Your task to perform on an android device: toggle translation in the chrome app Image 0: 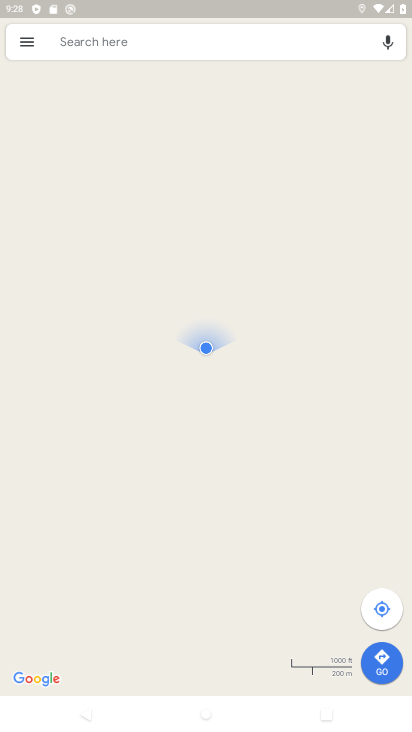
Step 0: press home button
Your task to perform on an android device: toggle translation in the chrome app Image 1: 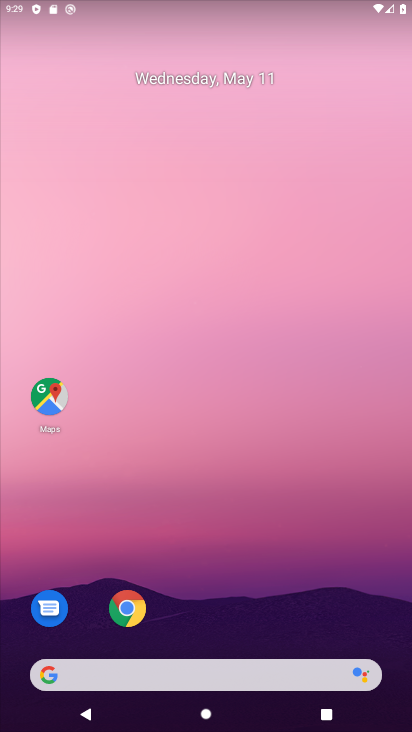
Step 1: click (135, 606)
Your task to perform on an android device: toggle translation in the chrome app Image 2: 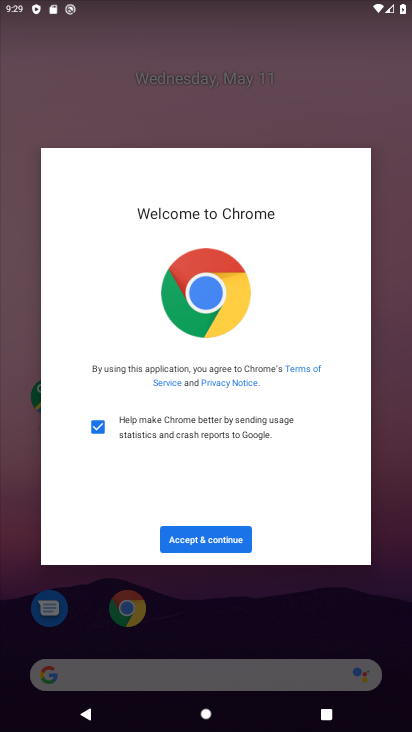
Step 2: click (220, 536)
Your task to perform on an android device: toggle translation in the chrome app Image 3: 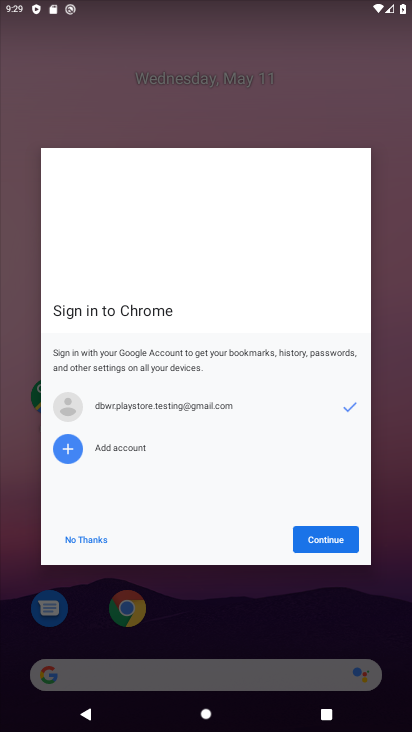
Step 3: click (319, 539)
Your task to perform on an android device: toggle translation in the chrome app Image 4: 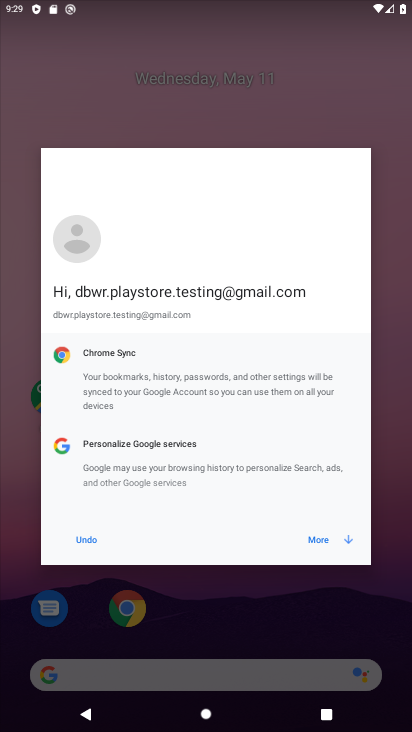
Step 4: click (316, 549)
Your task to perform on an android device: toggle translation in the chrome app Image 5: 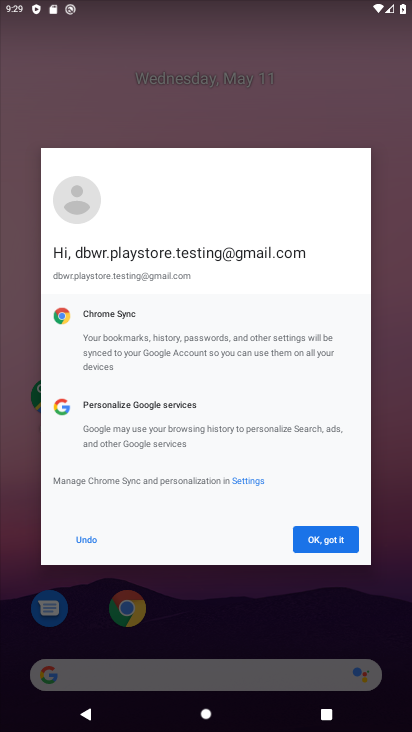
Step 5: click (324, 545)
Your task to perform on an android device: toggle translation in the chrome app Image 6: 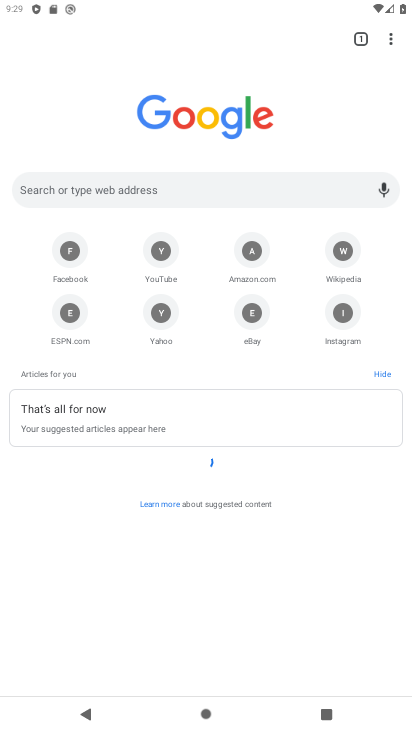
Step 6: drag from (392, 38) to (280, 328)
Your task to perform on an android device: toggle translation in the chrome app Image 7: 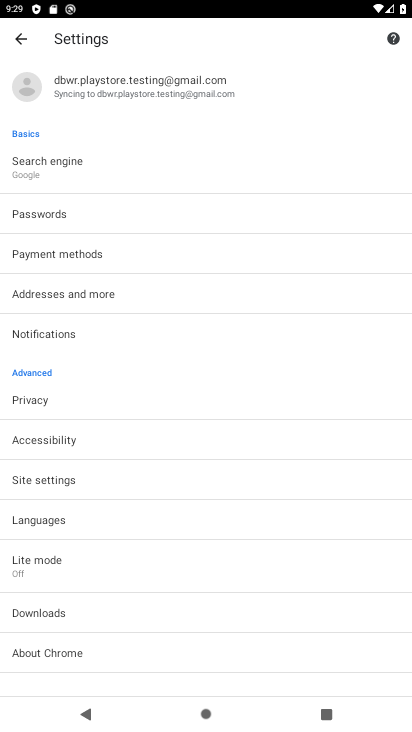
Step 7: click (36, 518)
Your task to perform on an android device: toggle translation in the chrome app Image 8: 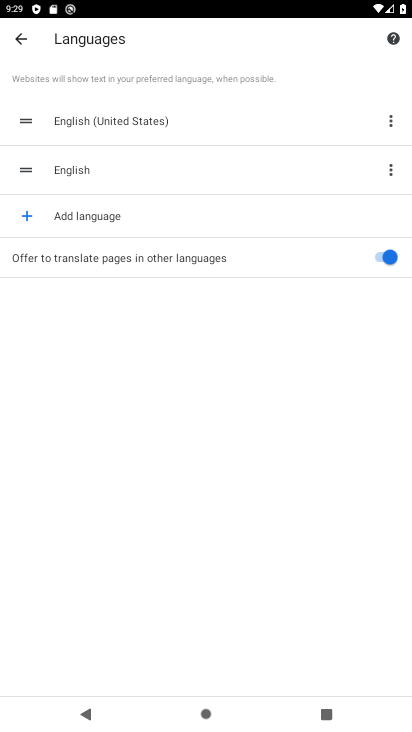
Step 8: click (385, 254)
Your task to perform on an android device: toggle translation in the chrome app Image 9: 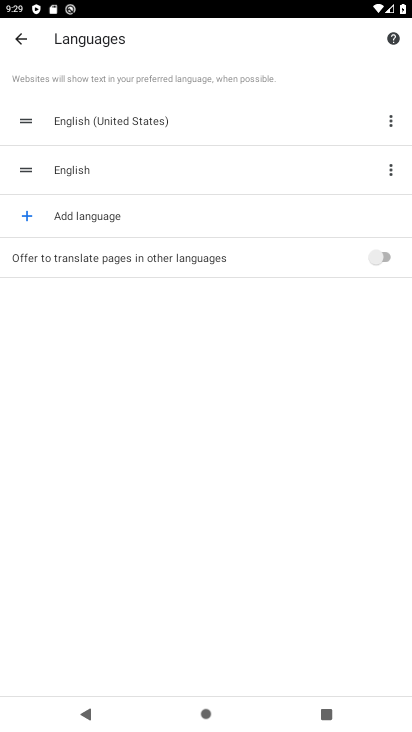
Step 9: task complete